Your task to perform on an android device: Open my contact list Image 0: 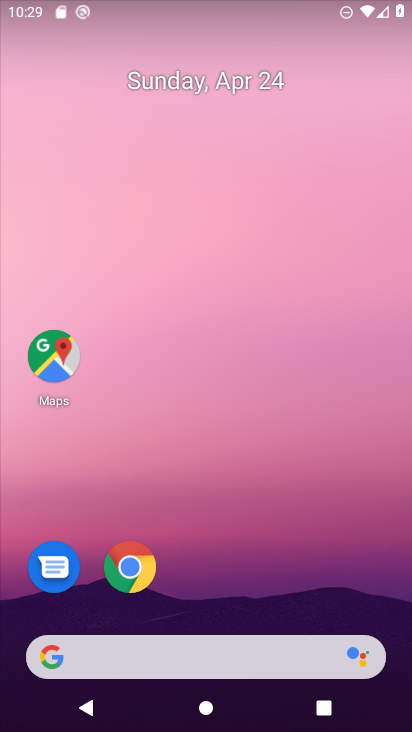
Step 0: drag from (188, 547) to (2, 29)
Your task to perform on an android device: Open my contact list Image 1: 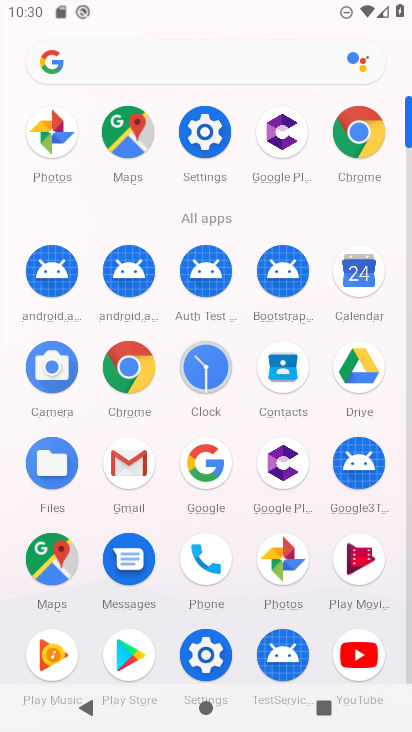
Step 1: click (290, 361)
Your task to perform on an android device: Open my contact list Image 2: 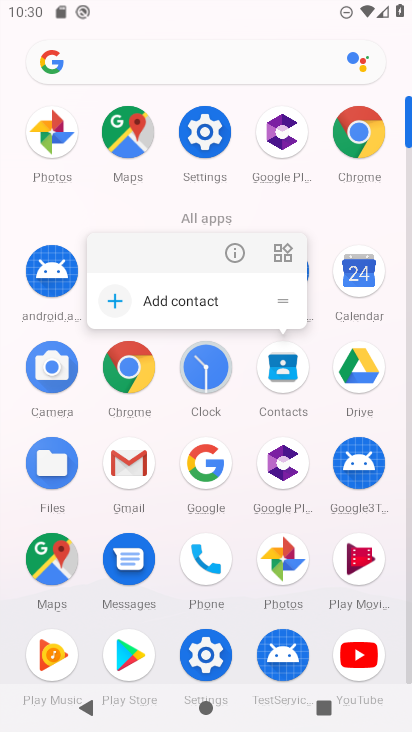
Step 2: click (229, 252)
Your task to perform on an android device: Open my contact list Image 3: 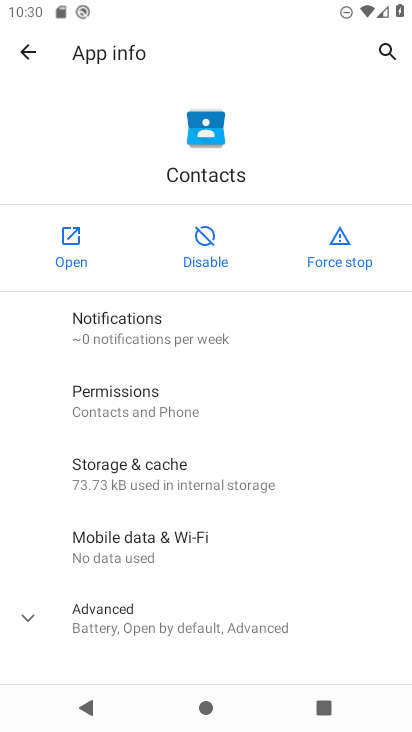
Step 3: click (79, 253)
Your task to perform on an android device: Open my contact list Image 4: 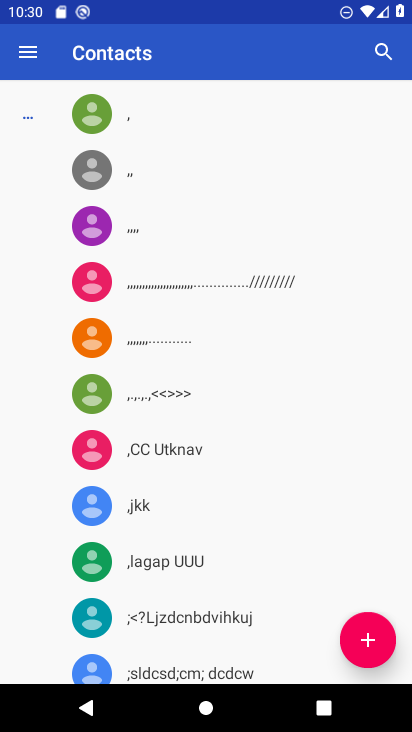
Step 4: task complete